Your task to perform on an android device: turn off improve location accuracy Image 0: 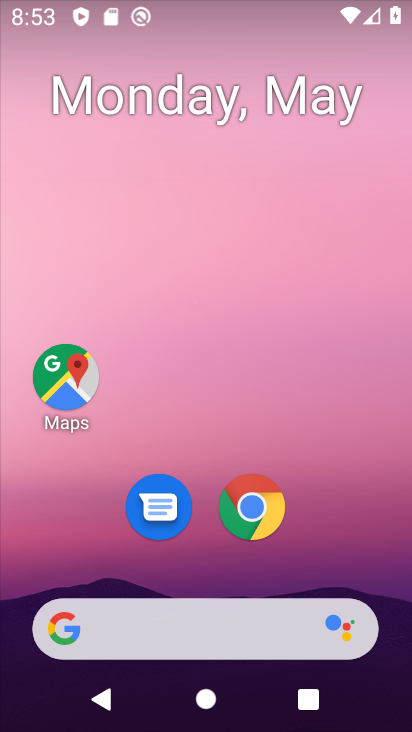
Step 0: drag from (213, 571) to (280, 8)
Your task to perform on an android device: turn off improve location accuracy Image 1: 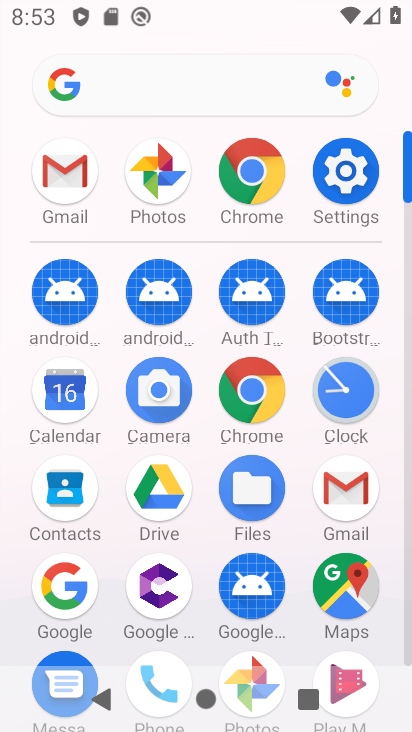
Step 1: click (363, 169)
Your task to perform on an android device: turn off improve location accuracy Image 2: 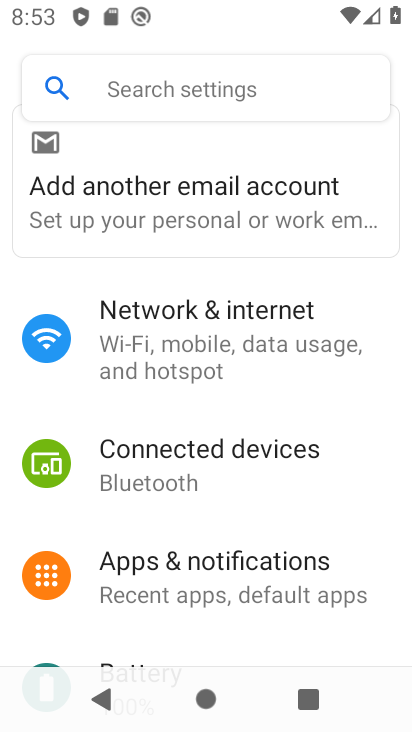
Step 2: drag from (202, 507) to (252, 306)
Your task to perform on an android device: turn off improve location accuracy Image 3: 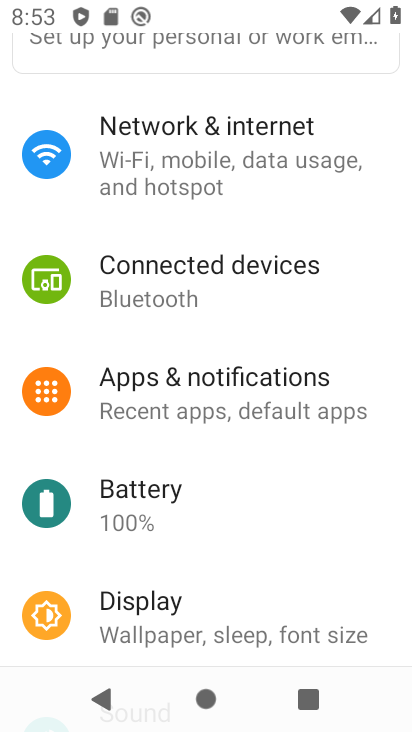
Step 3: drag from (218, 495) to (262, 269)
Your task to perform on an android device: turn off improve location accuracy Image 4: 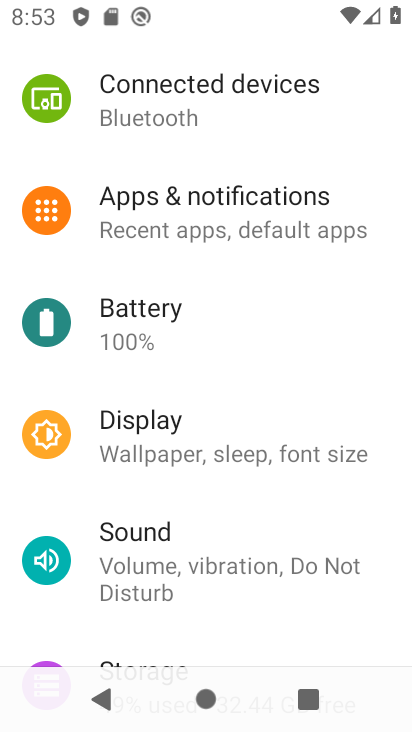
Step 4: drag from (255, 195) to (272, 116)
Your task to perform on an android device: turn off improve location accuracy Image 5: 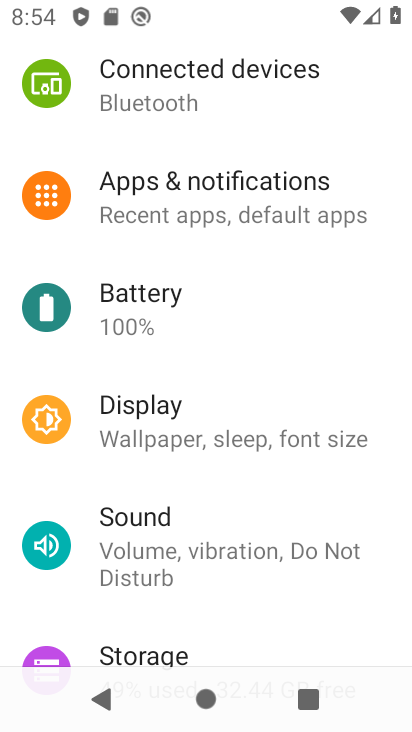
Step 5: drag from (145, 555) to (210, 211)
Your task to perform on an android device: turn off improve location accuracy Image 6: 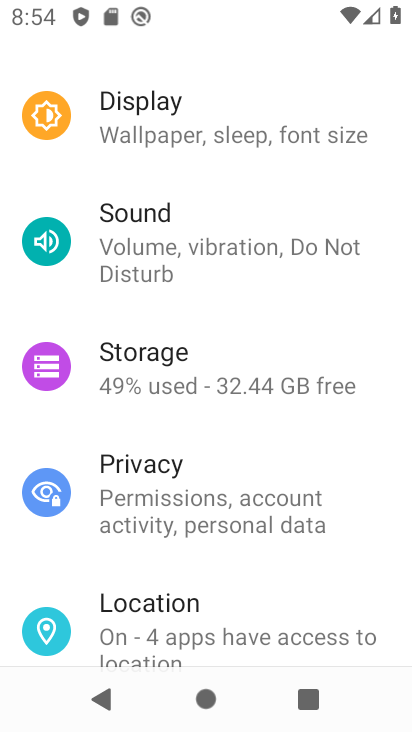
Step 6: click (161, 623)
Your task to perform on an android device: turn off improve location accuracy Image 7: 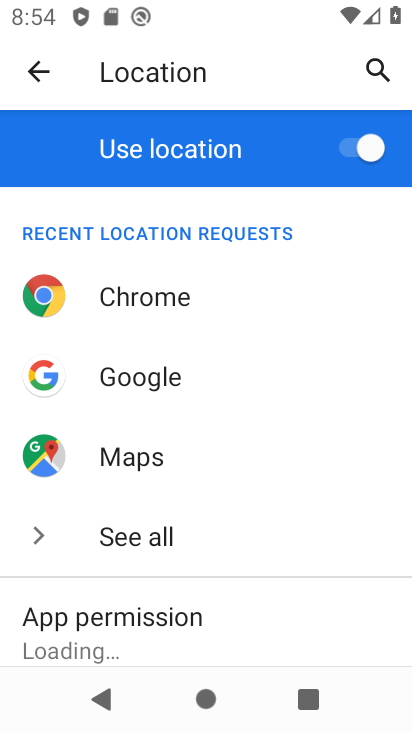
Step 7: drag from (149, 587) to (222, 319)
Your task to perform on an android device: turn off improve location accuracy Image 8: 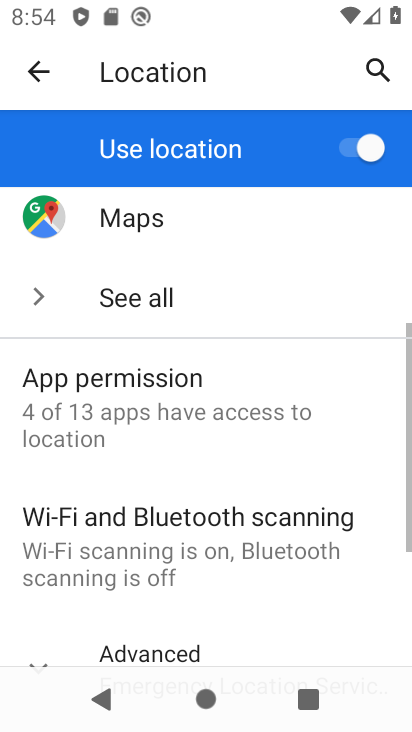
Step 8: drag from (224, 608) to (284, 359)
Your task to perform on an android device: turn off improve location accuracy Image 9: 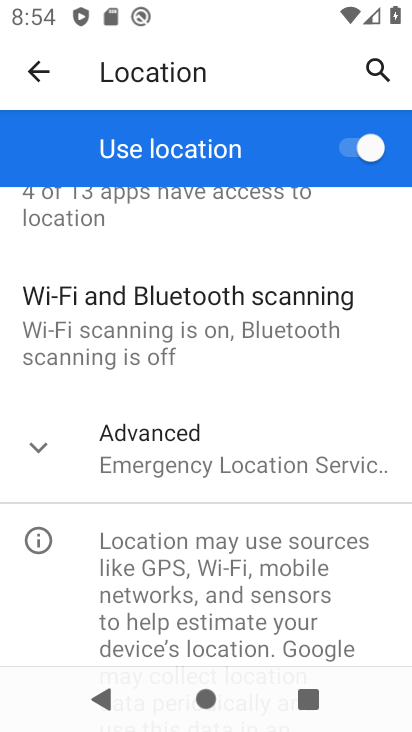
Step 9: click (148, 466)
Your task to perform on an android device: turn off improve location accuracy Image 10: 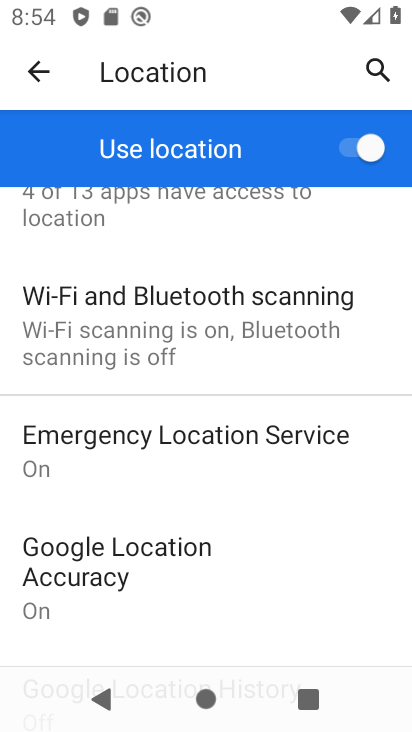
Step 10: drag from (117, 572) to (162, 360)
Your task to perform on an android device: turn off improve location accuracy Image 11: 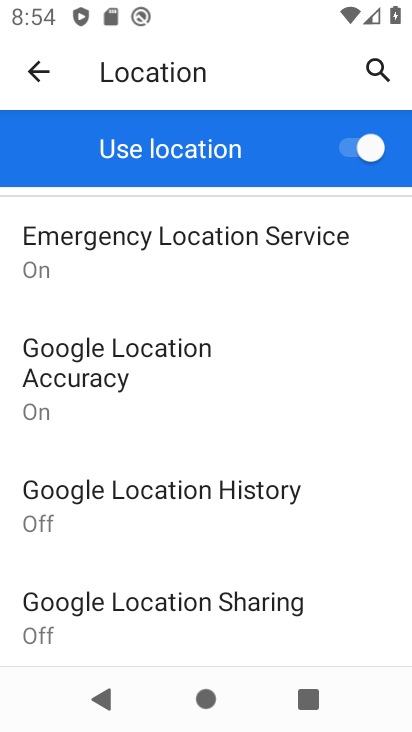
Step 11: click (105, 350)
Your task to perform on an android device: turn off improve location accuracy Image 12: 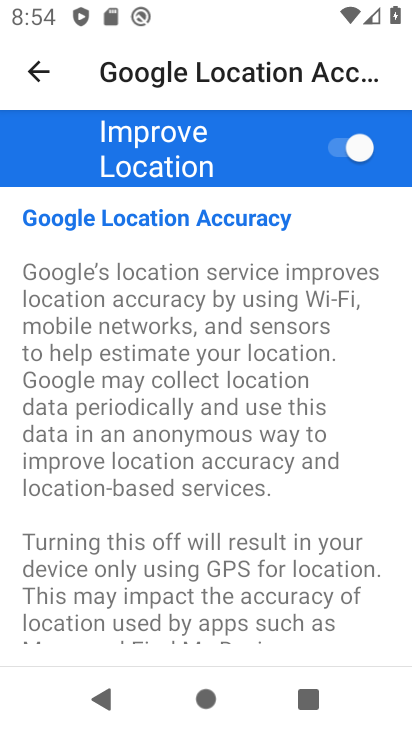
Step 12: click (309, 172)
Your task to perform on an android device: turn off improve location accuracy Image 13: 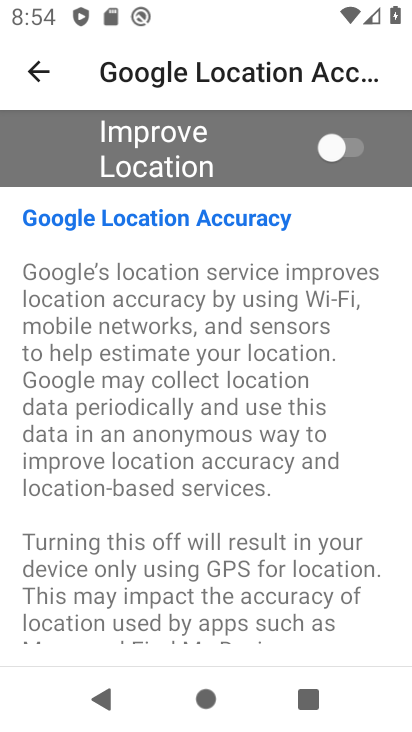
Step 13: task complete